Your task to perform on an android device: Open notification settings Image 0: 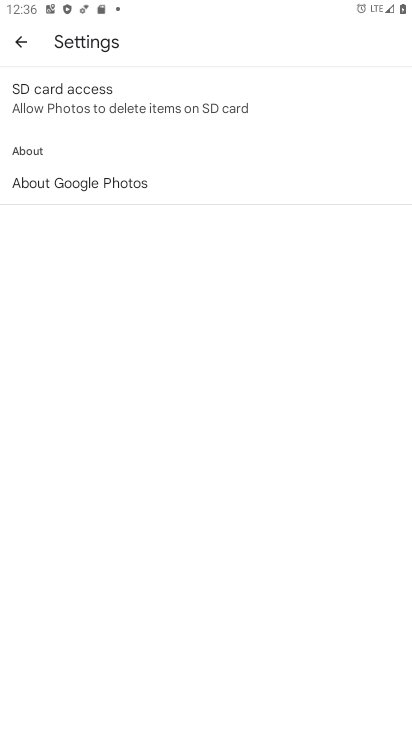
Step 0: press home button
Your task to perform on an android device: Open notification settings Image 1: 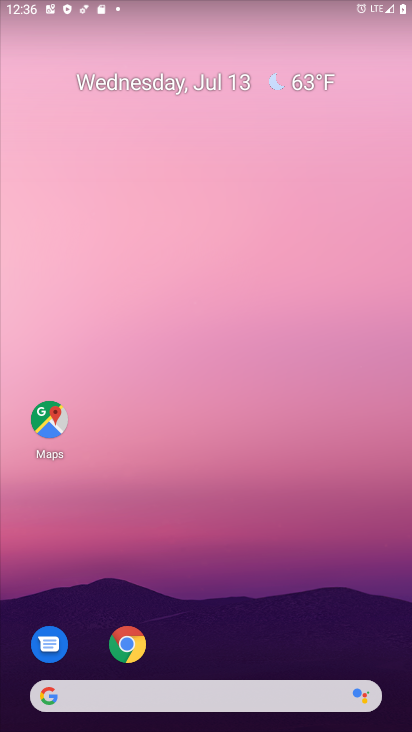
Step 1: drag from (212, 694) to (165, 283)
Your task to perform on an android device: Open notification settings Image 2: 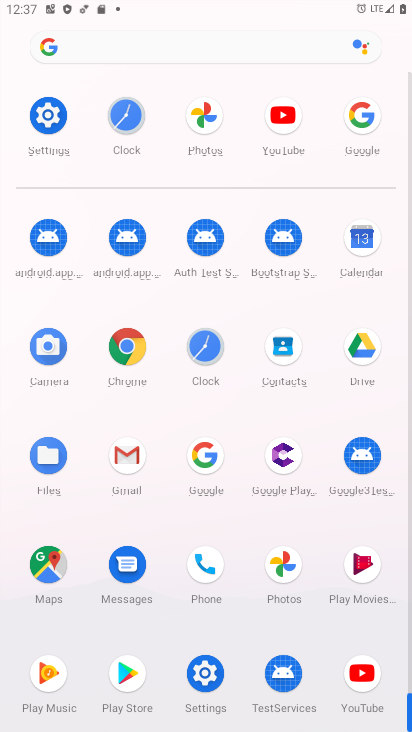
Step 2: click (48, 115)
Your task to perform on an android device: Open notification settings Image 3: 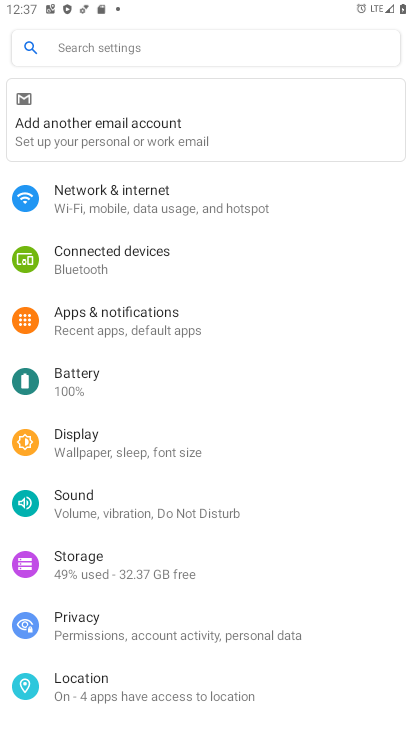
Step 3: click (98, 323)
Your task to perform on an android device: Open notification settings Image 4: 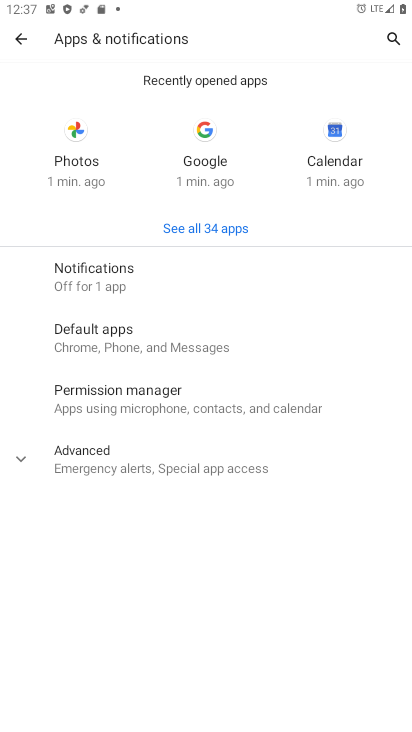
Step 4: click (101, 282)
Your task to perform on an android device: Open notification settings Image 5: 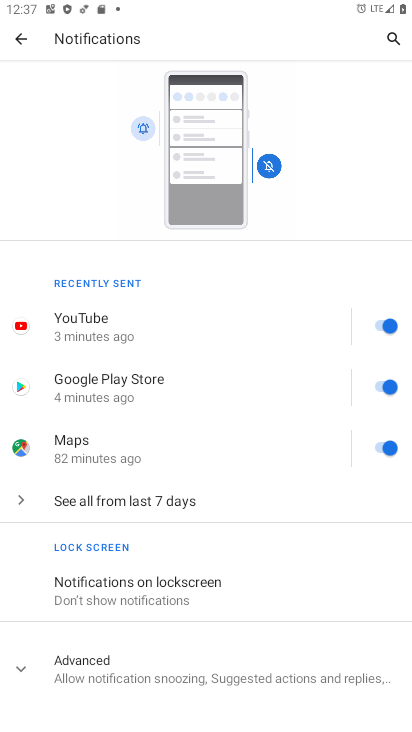
Step 5: task complete